Your task to perform on an android device: turn off location Image 0: 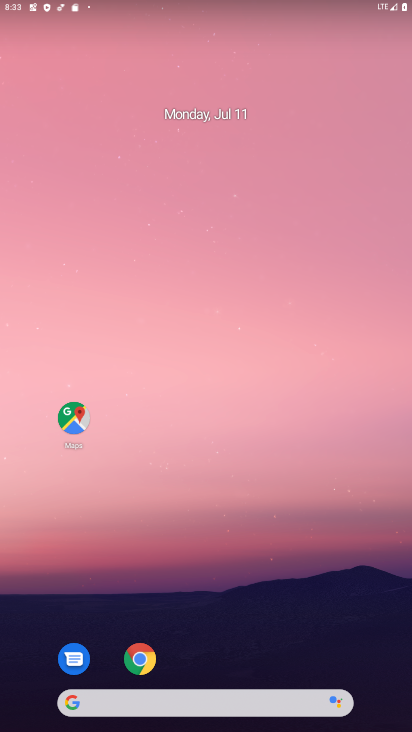
Step 0: drag from (209, 677) to (315, 0)
Your task to perform on an android device: turn off location Image 1: 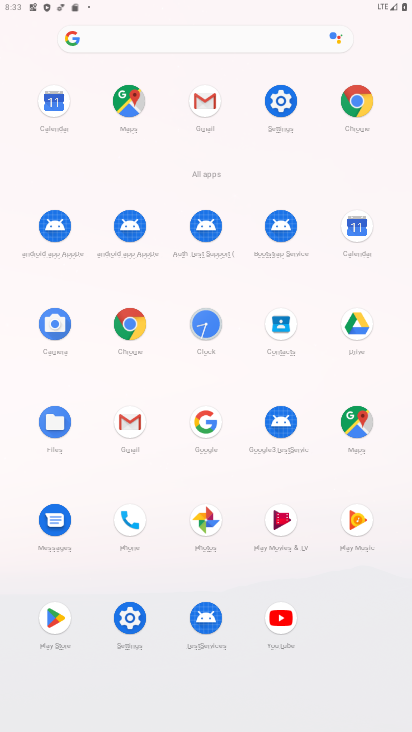
Step 1: click (126, 636)
Your task to perform on an android device: turn off location Image 2: 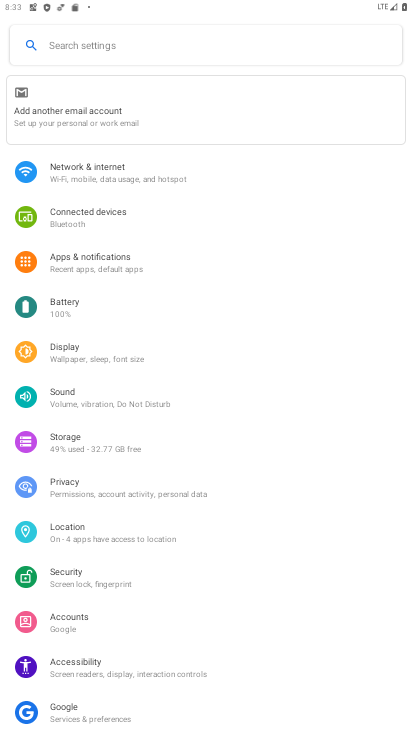
Step 2: click (95, 540)
Your task to perform on an android device: turn off location Image 3: 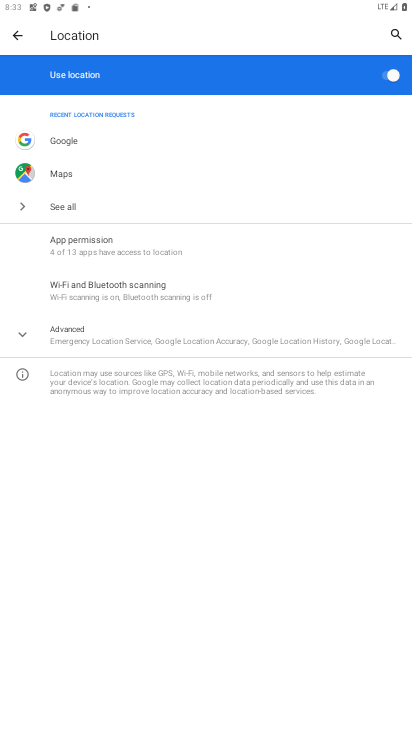
Step 3: click (375, 77)
Your task to perform on an android device: turn off location Image 4: 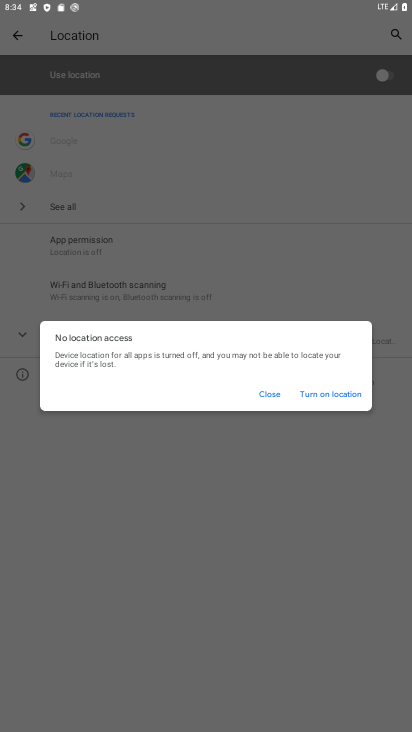
Step 4: click (268, 405)
Your task to perform on an android device: turn off location Image 5: 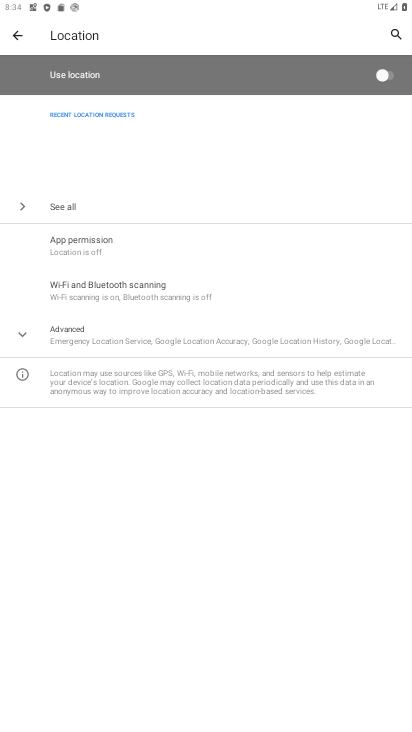
Step 5: task complete